Your task to perform on an android device: change timer sound Image 0: 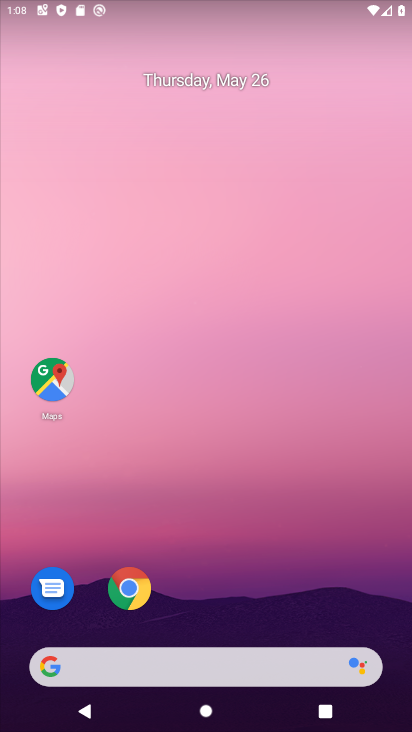
Step 0: drag from (390, 692) to (347, 268)
Your task to perform on an android device: change timer sound Image 1: 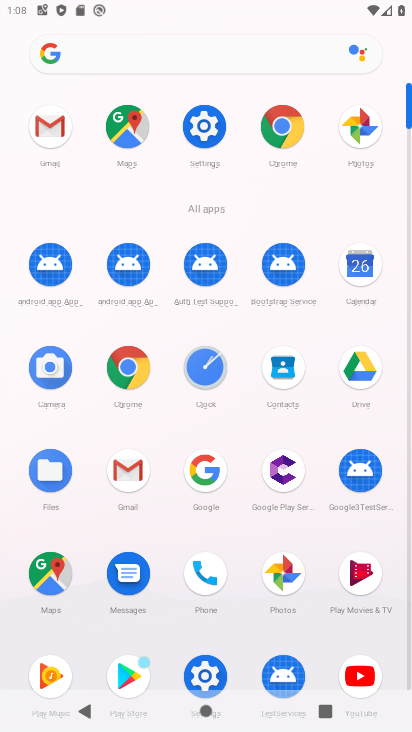
Step 1: click (198, 123)
Your task to perform on an android device: change timer sound Image 2: 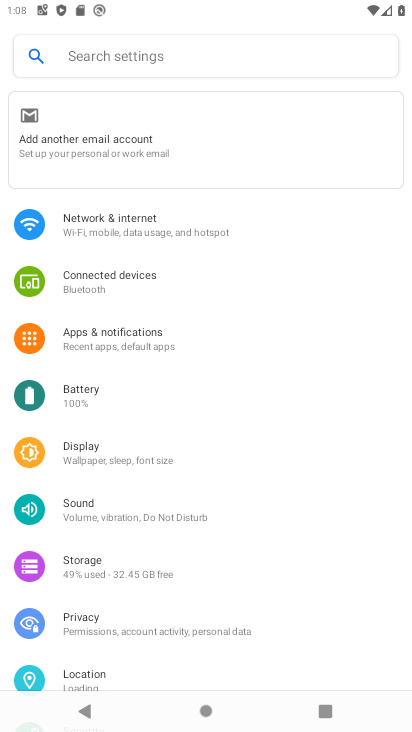
Step 2: click (90, 513)
Your task to perform on an android device: change timer sound Image 3: 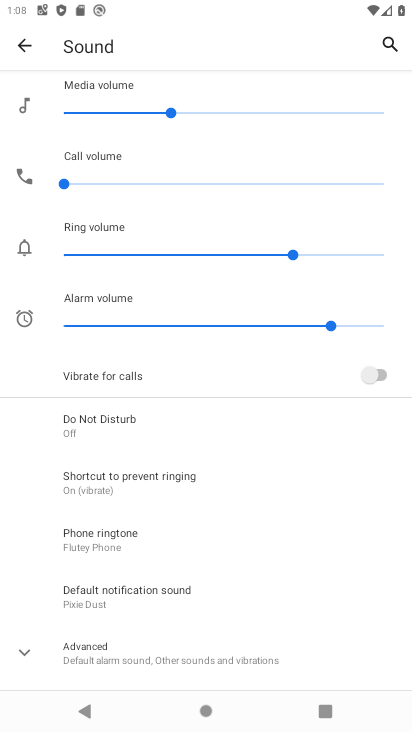
Step 3: press home button
Your task to perform on an android device: change timer sound Image 4: 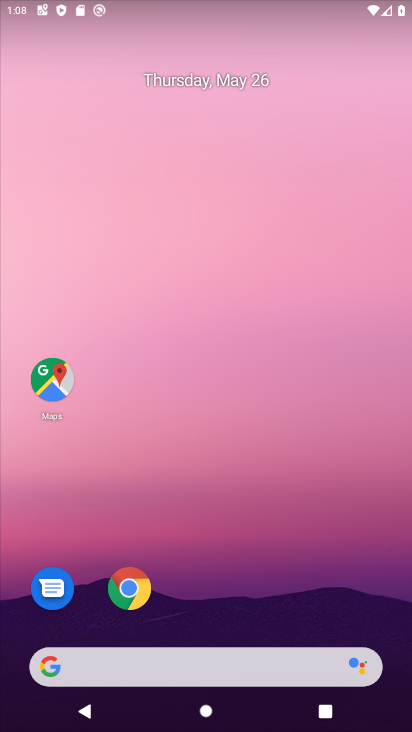
Step 4: drag from (396, 707) to (384, 135)
Your task to perform on an android device: change timer sound Image 5: 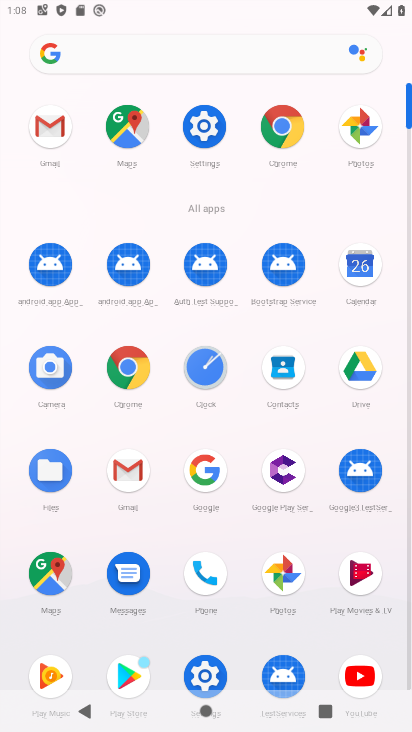
Step 5: click (203, 369)
Your task to perform on an android device: change timer sound Image 6: 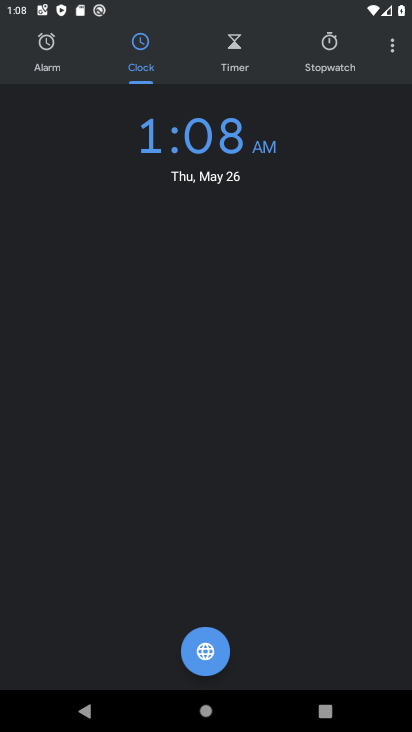
Step 6: click (394, 51)
Your task to perform on an android device: change timer sound Image 7: 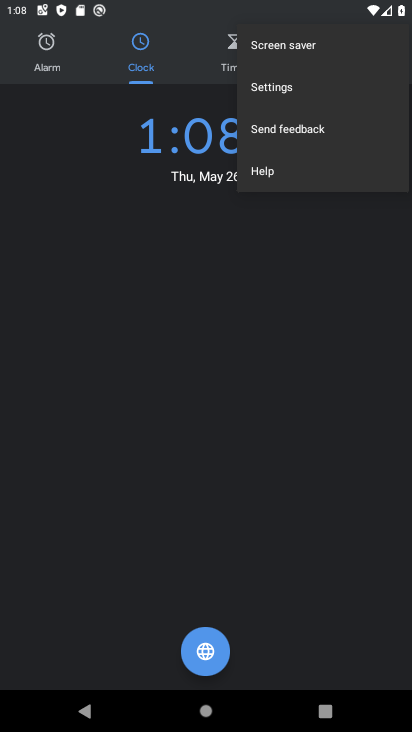
Step 7: click (300, 92)
Your task to perform on an android device: change timer sound Image 8: 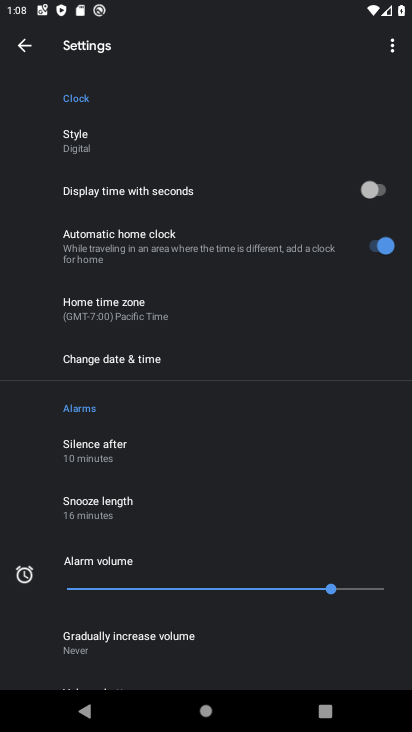
Step 8: drag from (215, 666) to (231, 323)
Your task to perform on an android device: change timer sound Image 9: 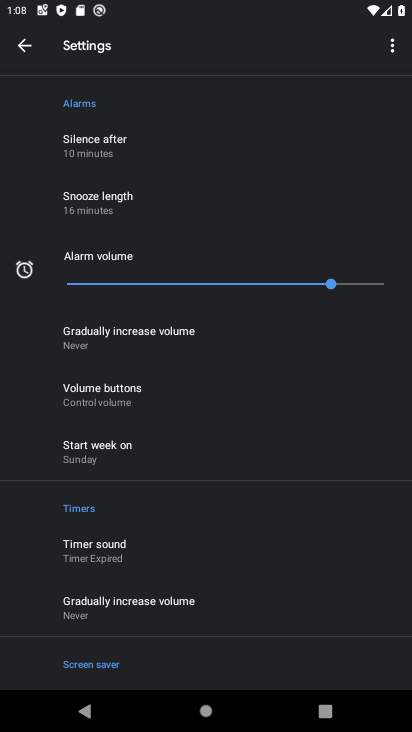
Step 9: click (85, 549)
Your task to perform on an android device: change timer sound Image 10: 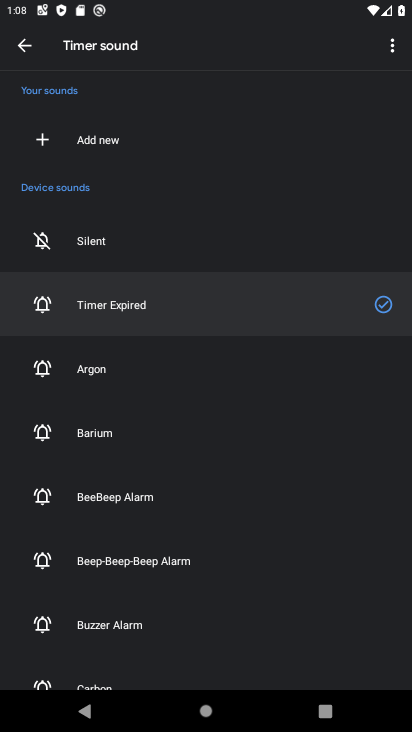
Step 10: click (76, 430)
Your task to perform on an android device: change timer sound Image 11: 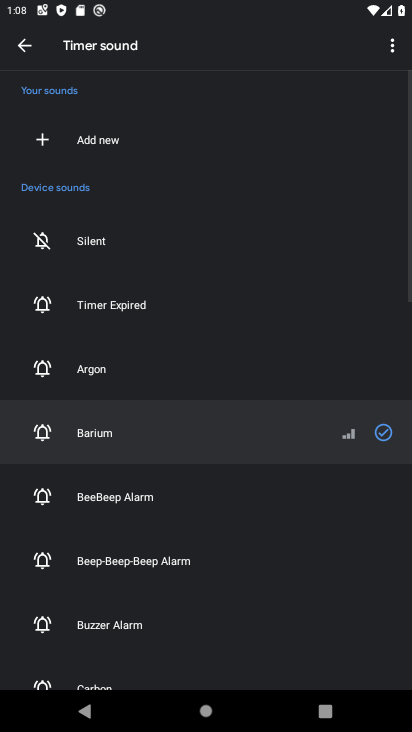
Step 11: task complete